Your task to perform on an android device: turn on sleep mode Image 0: 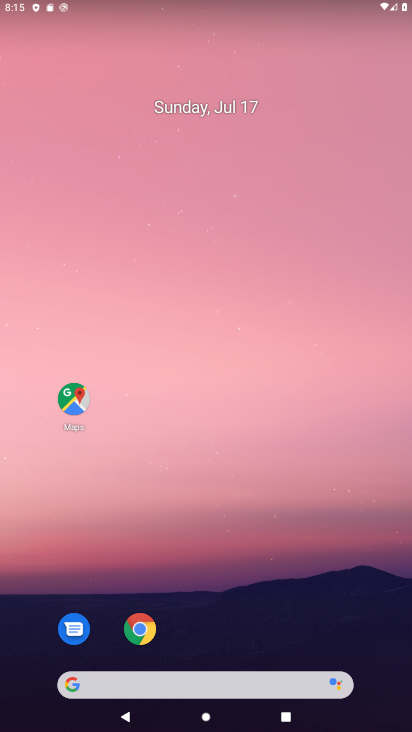
Step 0: drag from (339, 618) to (308, 287)
Your task to perform on an android device: turn on sleep mode Image 1: 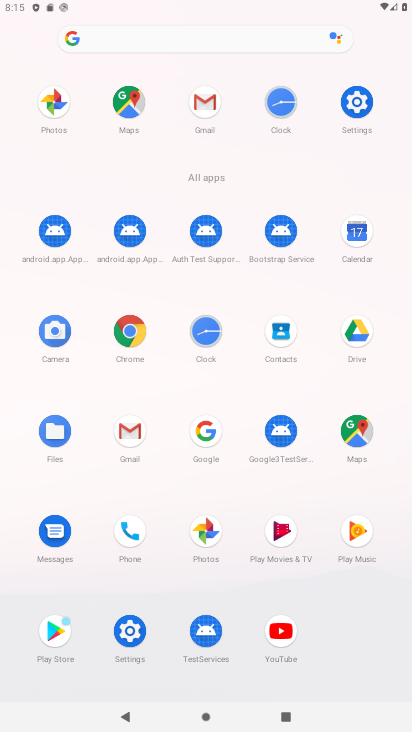
Step 1: click (363, 112)
Your task to perform on an android device: turn on sleep mode Image 2: 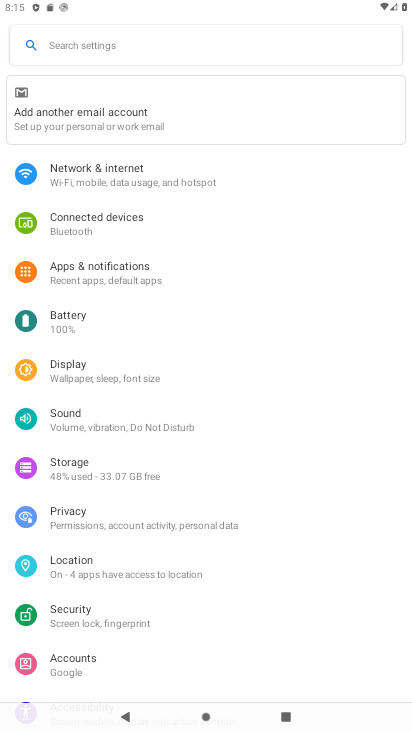
Step 2: click (151, 373)
Your task to perform on an android device: turn on sleep mode Image 3: 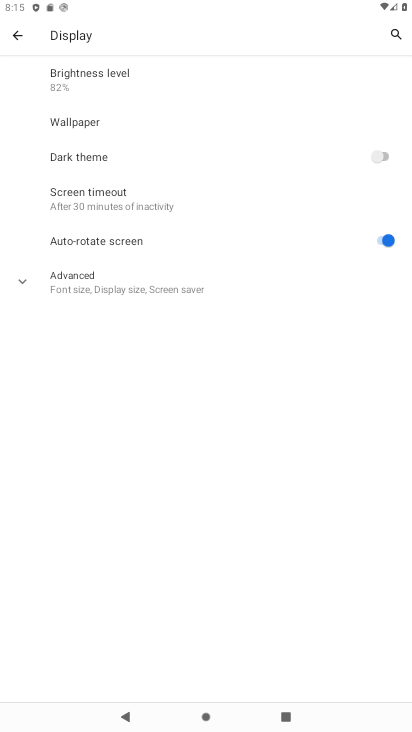
Step 3: click (186, 294)
Your task to perform on an android device: turn on sleep mode Image 4: 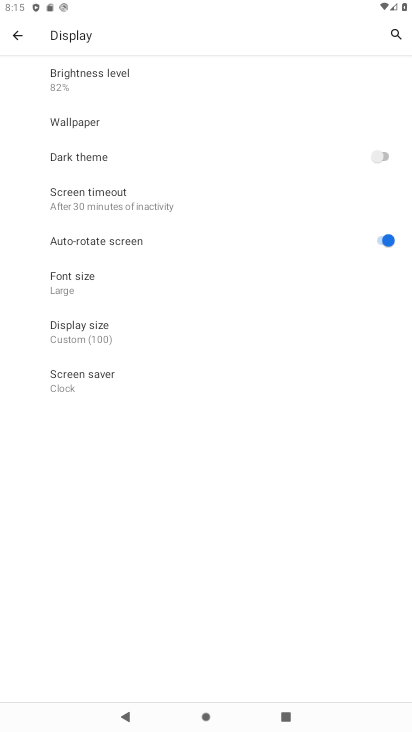
Step 4: task complete